Your task to perform on an android device: check android version Image 0: 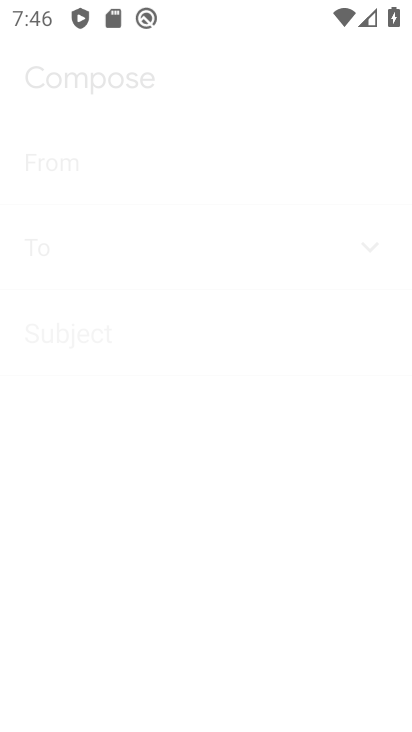
Step 0: drag from (364, 572) to (310, 206)
Your task to perform on an android device: check android version Image 1: 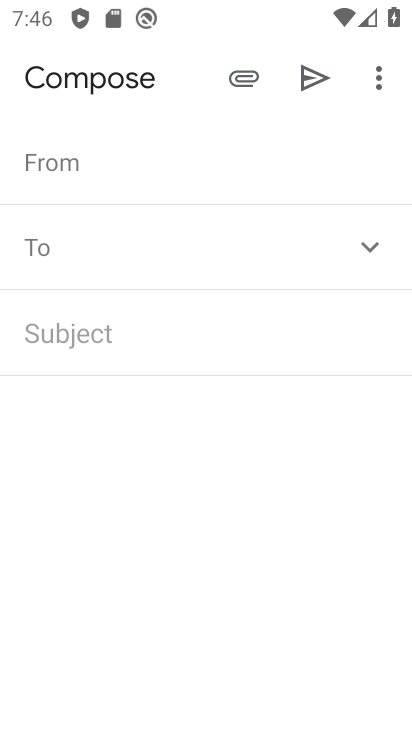
Step 1: click (310, 155)
Your task to perform on an android device: check android version Image 2: 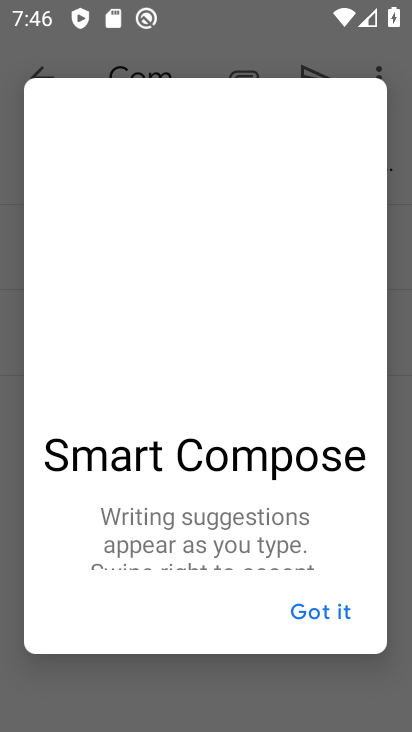
Step 2: press home button
Your task to perform on an android device: check android version Image 3: 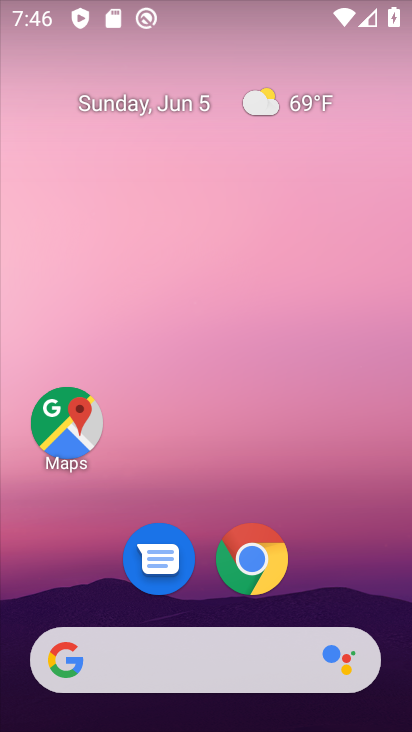
Step 3: drag from (342, 548) to (253, 115)
Your task to perform on an android device: check android version Image 4: 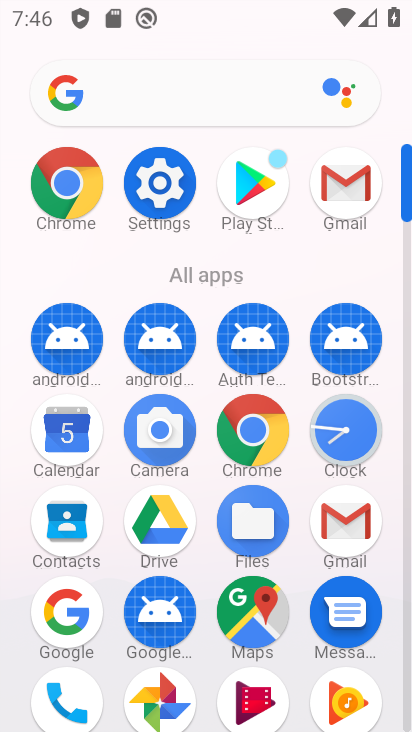
Step 4: click (167, 170)
Your task to perform on an android device: check android version Image 5: 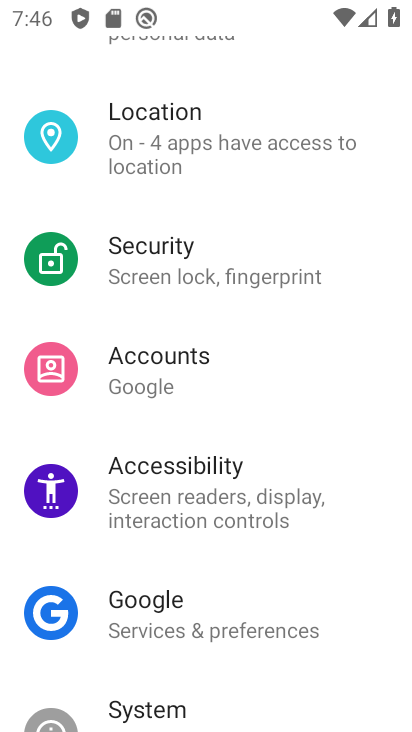
Step 5: drag from (246, 666) to (301, 215)
Your task to perform on an android device: check android version Image 6: 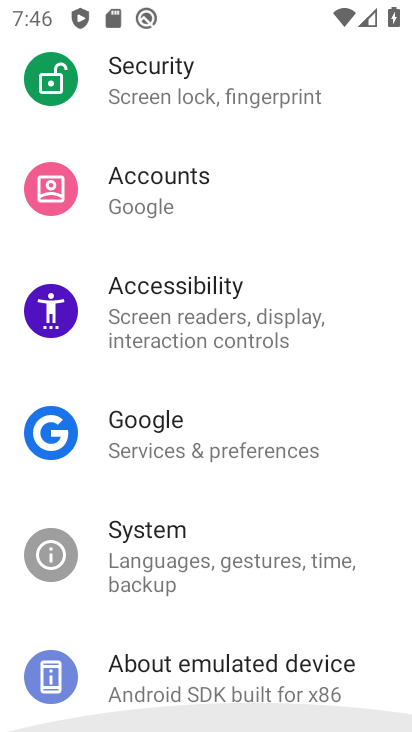
Step 6: click (307, 197)
Your task to perform on an android device: check android version Image 7: 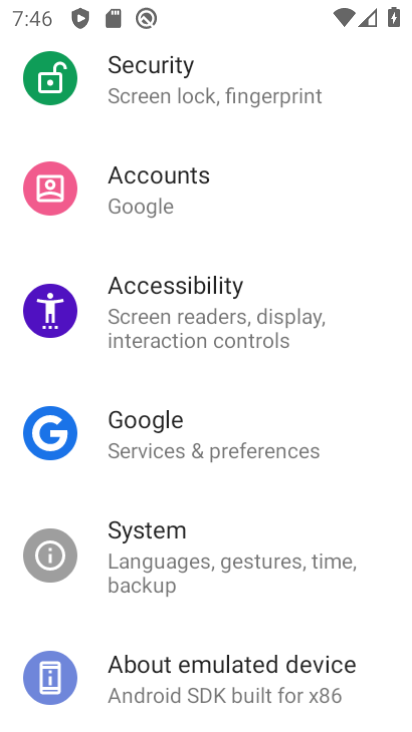
Step 7: click (204, 691)
Your task to perform on an android device: check android version Image 8: 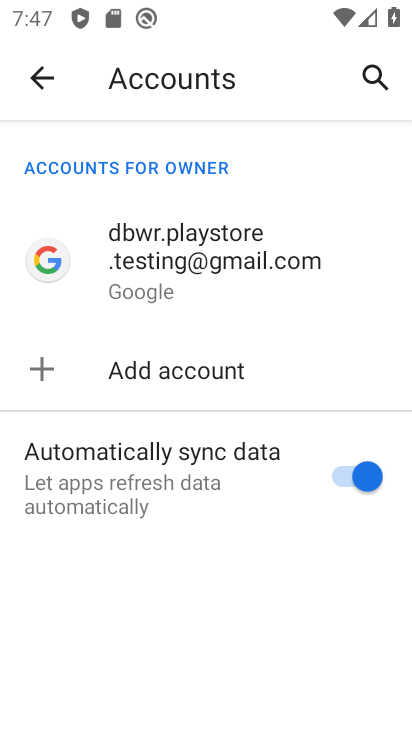
Step 8: click (36, 71)
Your task to perform on an android device: check android version Image 9: 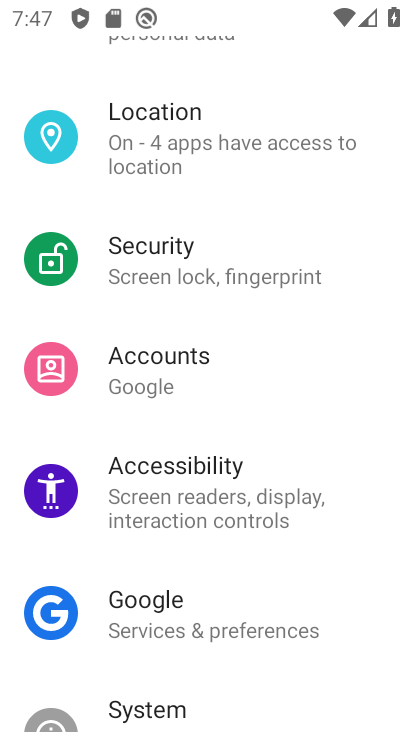
Step 9: drag from (151, 711) to (183, 186)
Your task to perform on an android device: check android version Image 10: 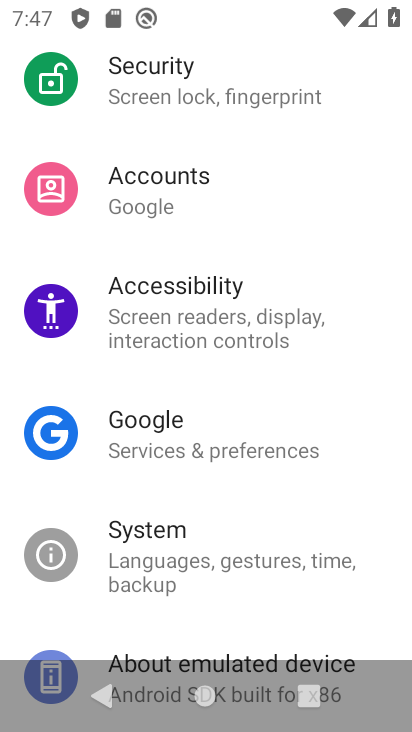
Step 10: drag from (172, 616) to (216, 302)
Your task to perform on an android device: check android version Image 11: 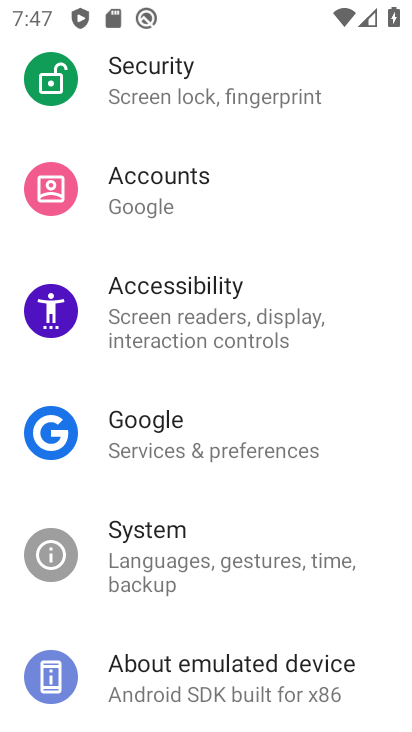
Step 11: click (146, 682)
Your task to perform on an android device: check android version Image 12: 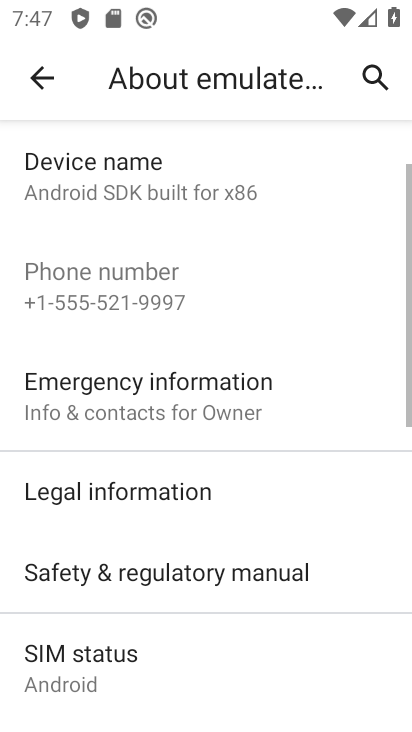
Step 12: drag from (138, 648) to (162, 193)
Your task to perform on an android device: check android version Image 13: 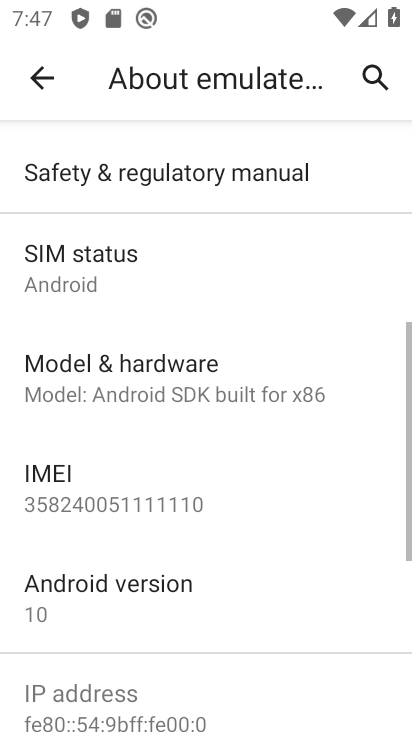
Step 13: click (101, 602)
Your task to perform on an android device: check android version Image 14: 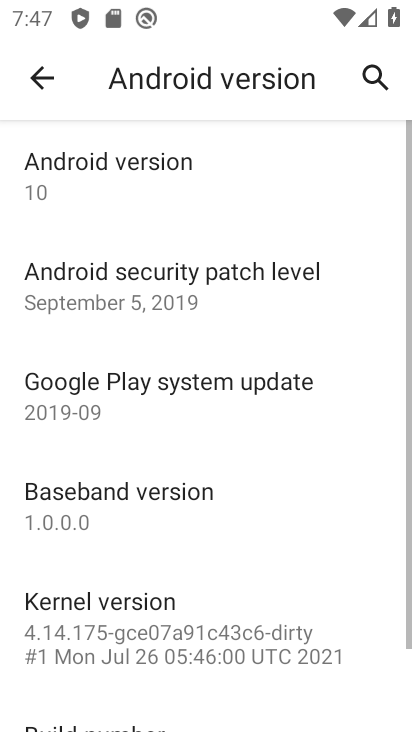
Step 14: task complete